Your task to perform on an android device: turn notification dots on Image 0: 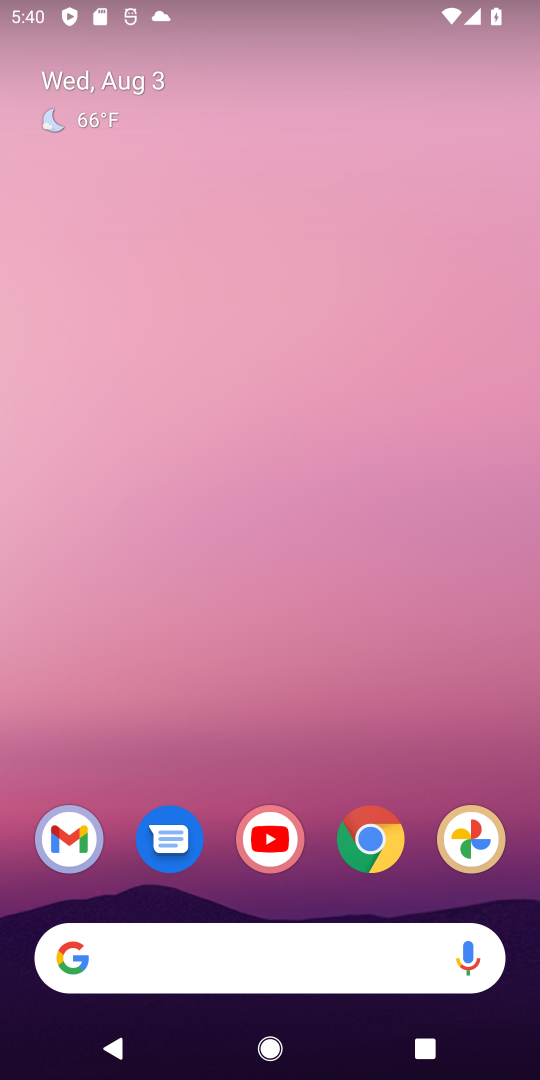
Step 0: drag from (259, 733) to (24, 1)
Your task to perform on an android device: turn notification dots on Image 1: 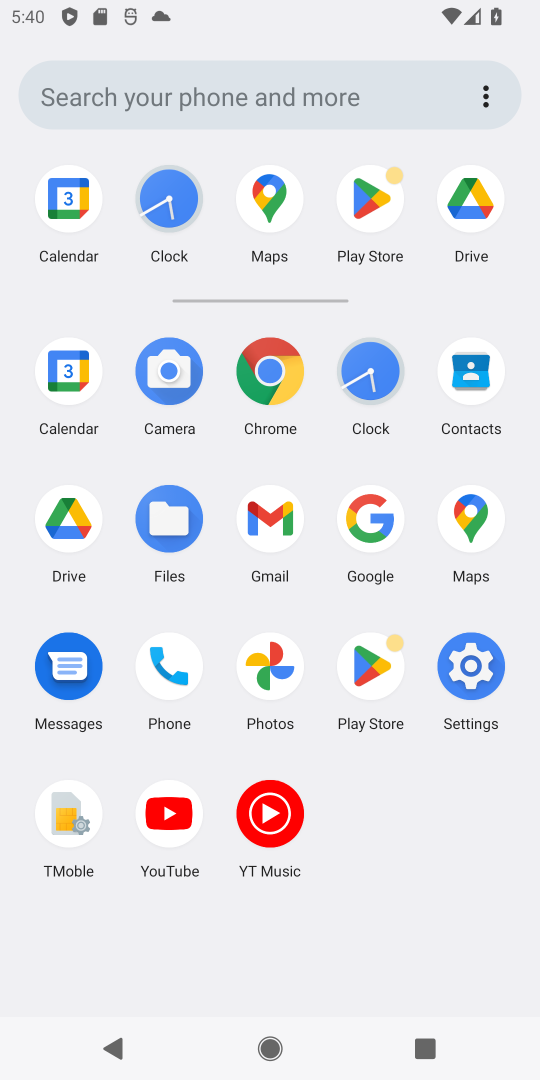
Step 1: click (483, 668)
Your task to perform on an android device: turn notification dots on Image 2: 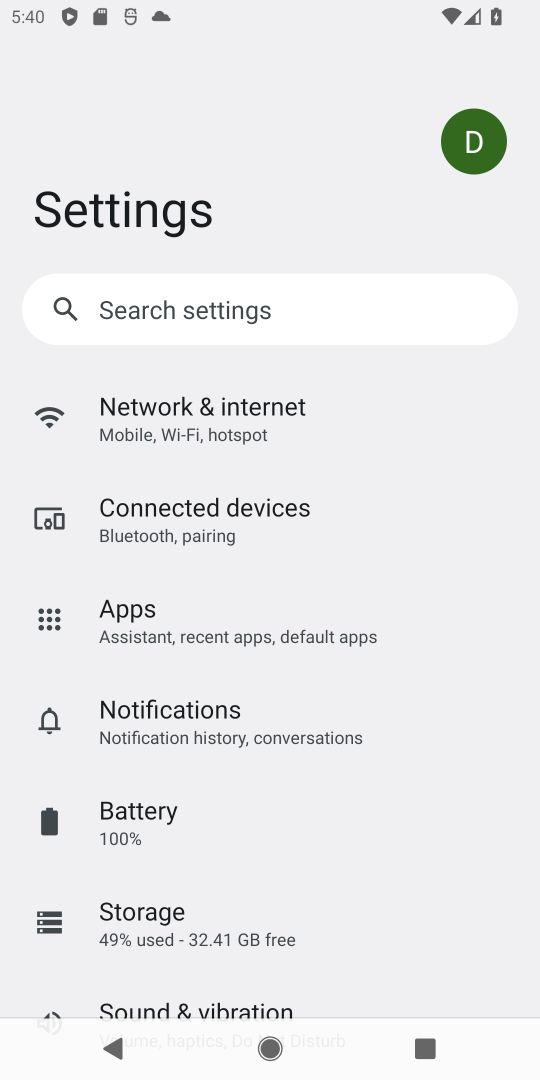
Step 2: click (173, 719)
Your task to perform on an android device: turn notification dots on Image 3: 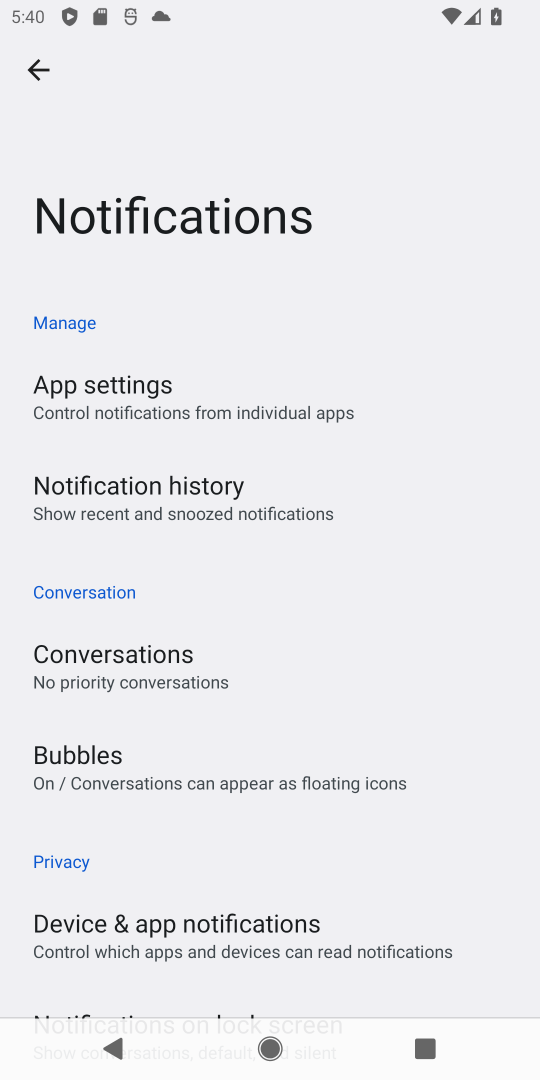
Step 3: task complete